Your task to perform on an android device: empty trash in the gmail app Image 0: 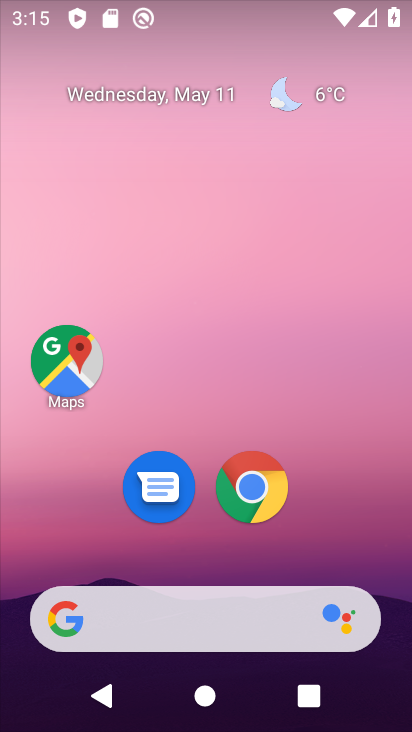
Step 0: drag from (162, 573) to (250, 59)
Your task to perform on an android device: empty trash in the gmail app Image 1: 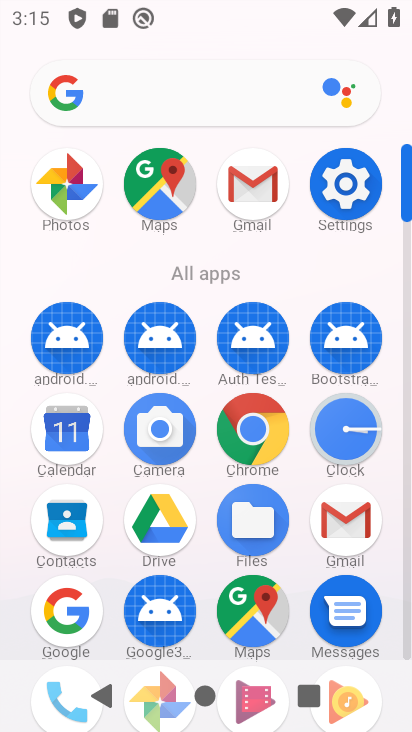
Step 1: click (369, 533)
Your task to perform on an android device: empty trash in the gmail app Image 2: 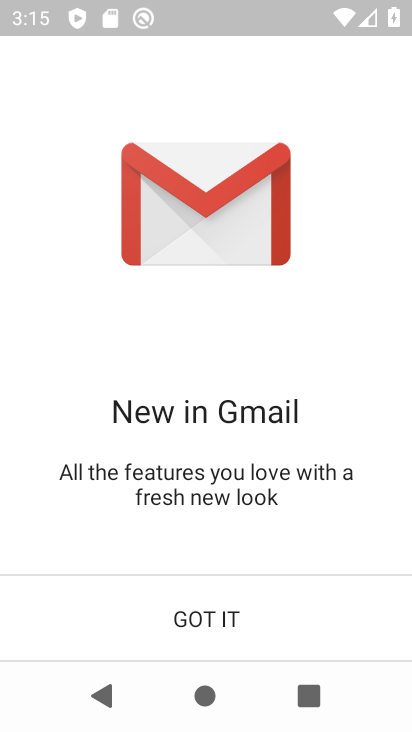
Step 2: click (209, 617)
Your task to perform on an android device: empty trash in the gmail app Image 3: 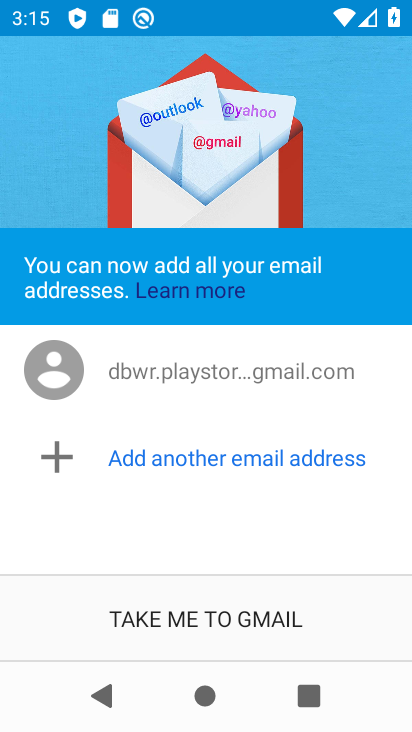
Step 3: click (241, 622)
Your task to perform on an android device: empty trash in the gmail app Image 4: 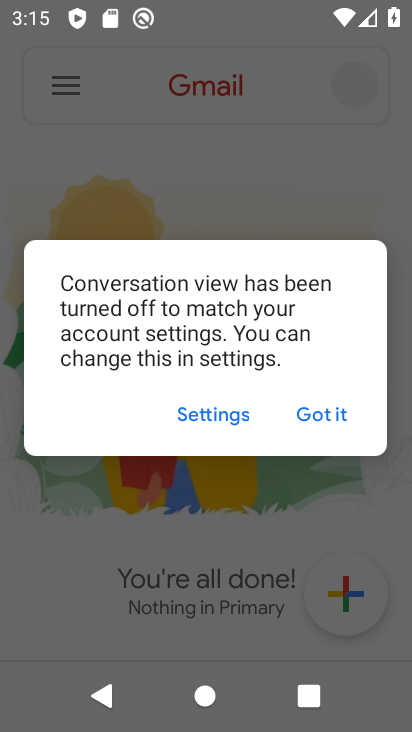
Step 4: click (308, 426)
Your task to perform on an android device: empty trash in the gmail app Image 5: 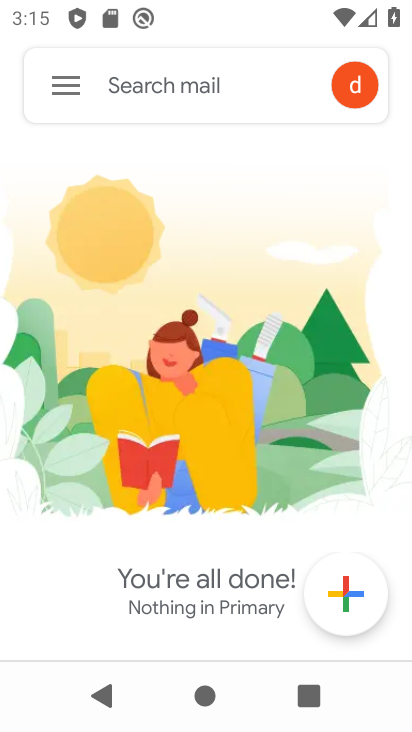
Step 5: click (66, 75)
Your task to perform on an android device: empty trash in the gmail app Image 6: 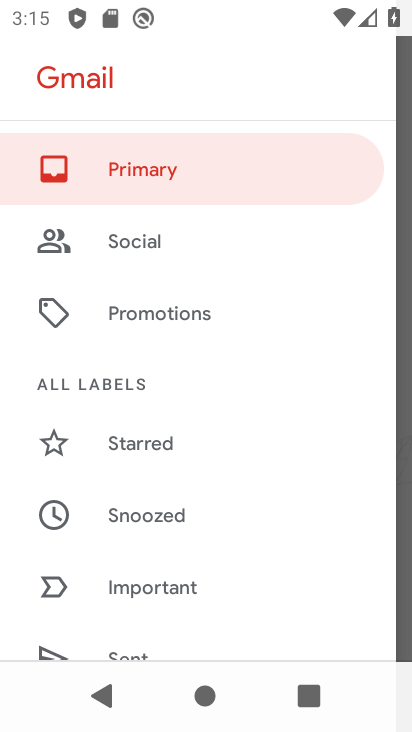
Step 6: drag from (174, 607) to (289, 240)
Your task to perform on an android device: empty trash in the gmail app Image 7: 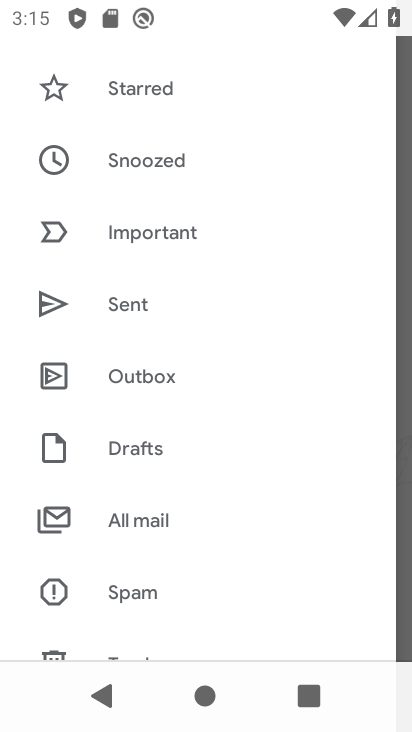
Step 7: drag from (206, 641) to (267, 383)
Your task to perform on an android device: empty trash in the gmail app Image 8: 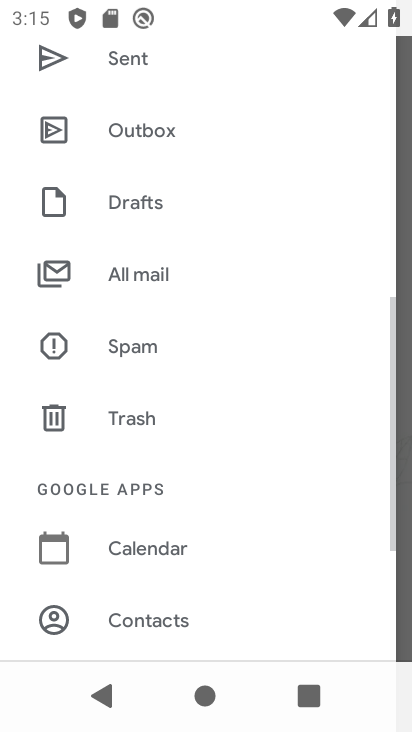
Step 8: click (193, 425)
Your task to perform on an android device: empty trash in the gmail app Image 9: 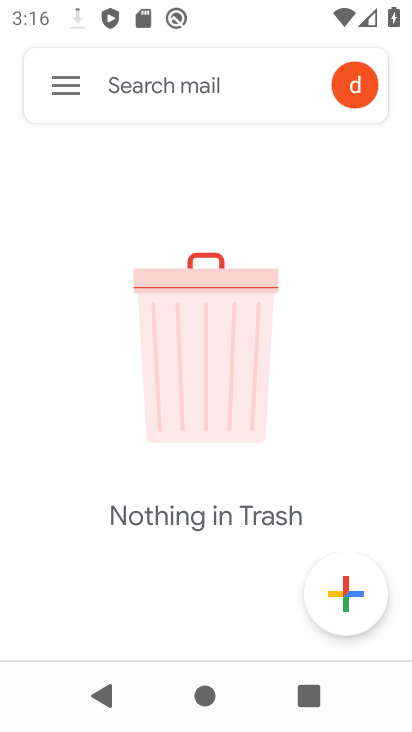
Step 9: task complete